Your task to perform on an android device: Open Google Maps Image 0: 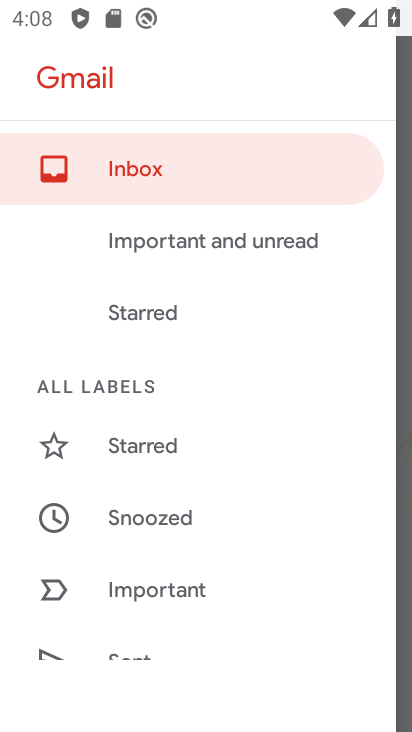
Step 0: press back button
Your task to perform on an android device: Open Google Maps Image 1: 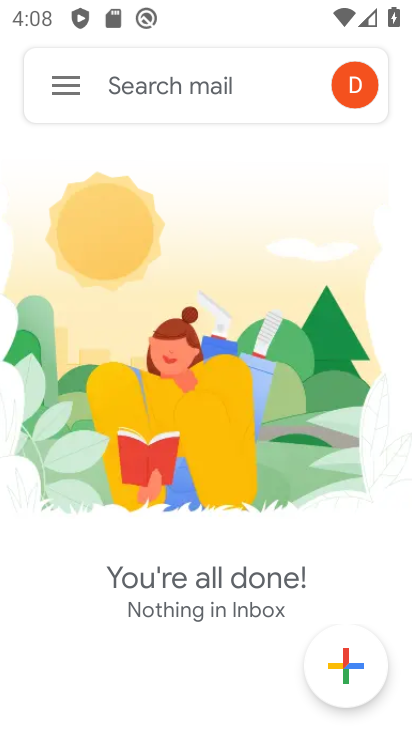
Step 1: press home button
Your task to perform on an android device: Open Google Maps Image 2: 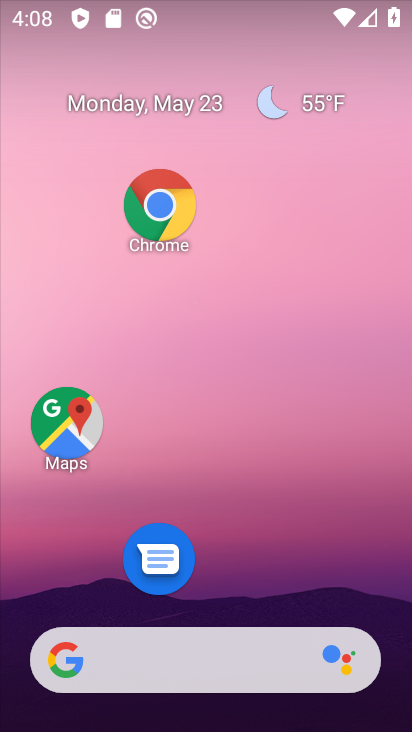
Step 2: drag from (207, 661) to (53, 13)
Your task to perform on an android device: Open Google Maps Image 3: 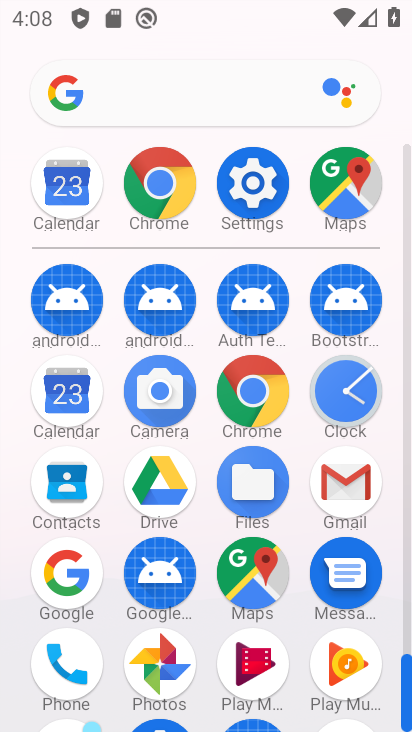
Step 3: click (338, 191)
Your task to perform on an android device: Open Google Maps Image 4: 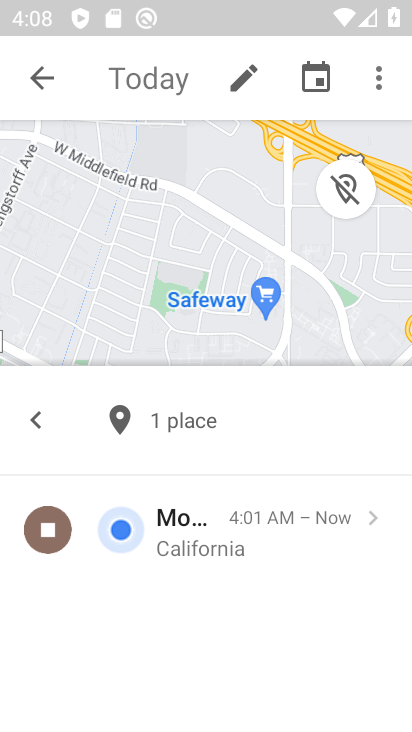
Step 4: click (43, 80)
Your task to perform on an android device: Open Google Maps Image 5: 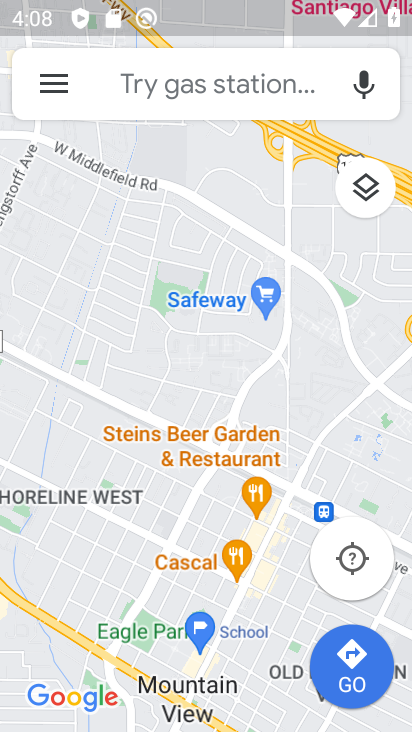
Step 5: task complete